Your task to perform on an android device: turn notification dots off Image 0: 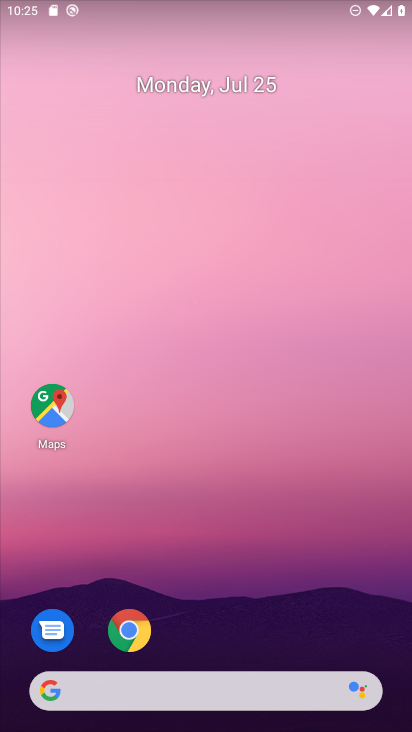
Step 0: drag from (320, 616) to (321, 84)
Your task to perform on an android device: turn notification dots off Image 1: 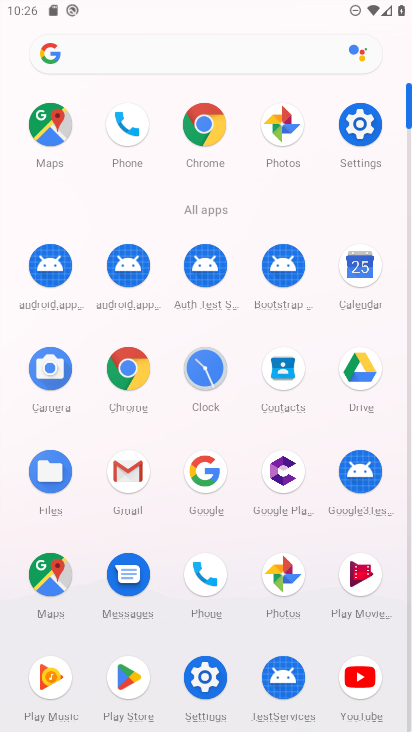
Step 1: click (363, 125)
Your task to perform on an android device: turn notification dots off Image 2: 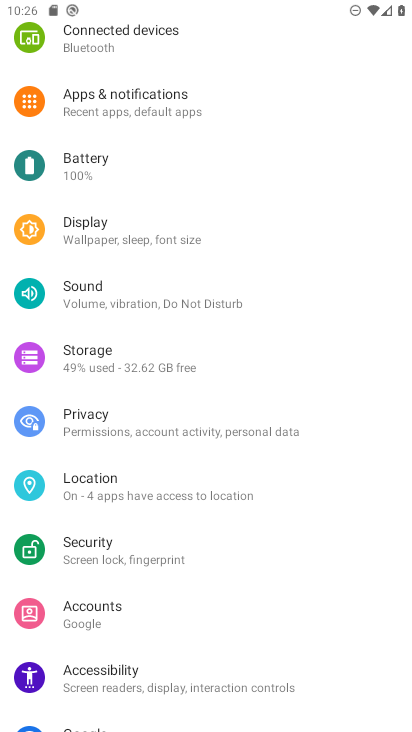
Step 2: click (122, 93)
Your task to perform on an android device: turn notification dots off Image 3: 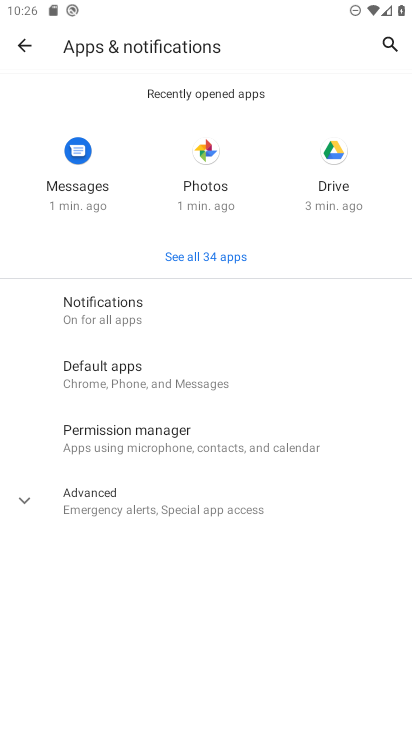
Step 3: click (154, 311)
Your task to perform on an android device: turn notification dots off Image 4: 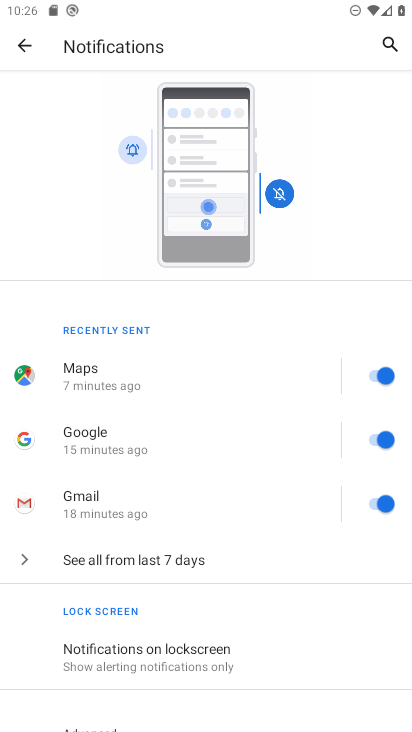
Step 4: drag from (347, 691) to (303, 198)
Your task to perform on an android device: turn notification dots off Image 5: 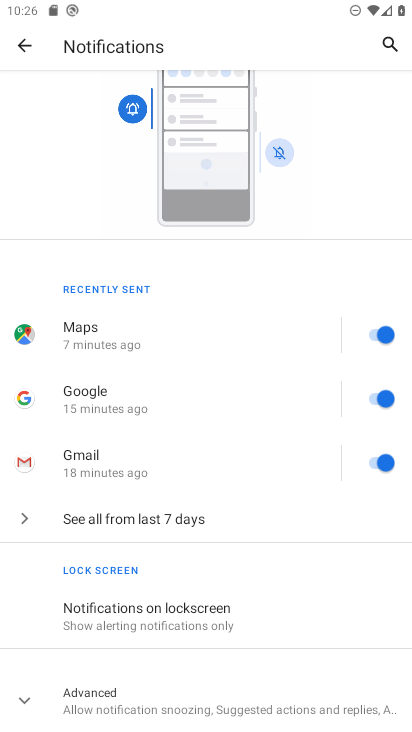
Step 5: click (192, 696)
Your task to perform on an android device: turn notification dots off Image 6: 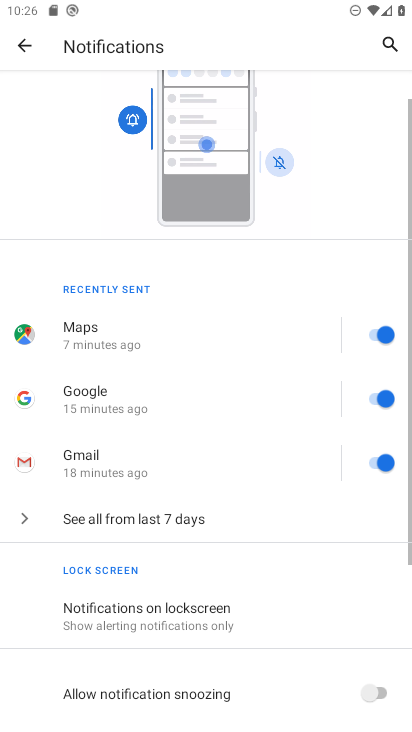
Step 6: drag from (289, 628) to (229, 177)
Your task to perform on an android device: turn notification dots off Image 7: 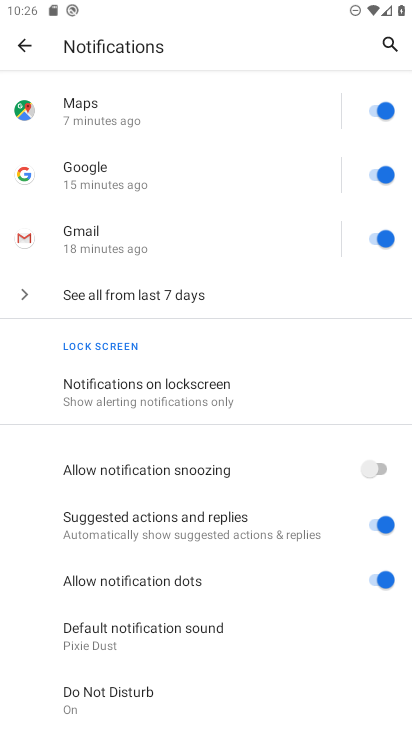
Step 7: click (376, 580)
Your task to perform on an android device: turn notification dots off Image 8: 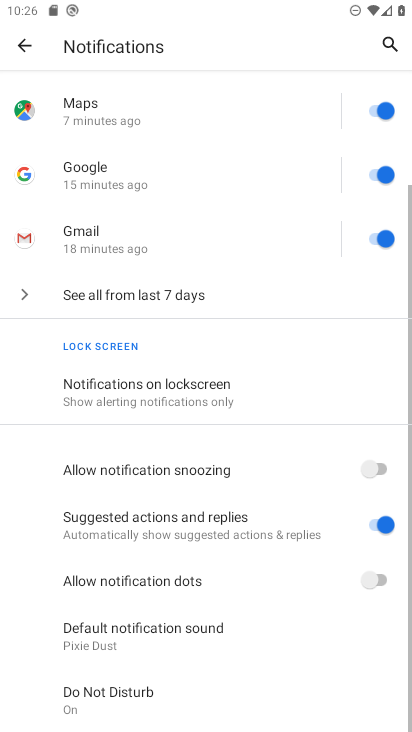
Step 8: task complete